Your task to perform on an android device: check the backup settings in the google photos Image 0: 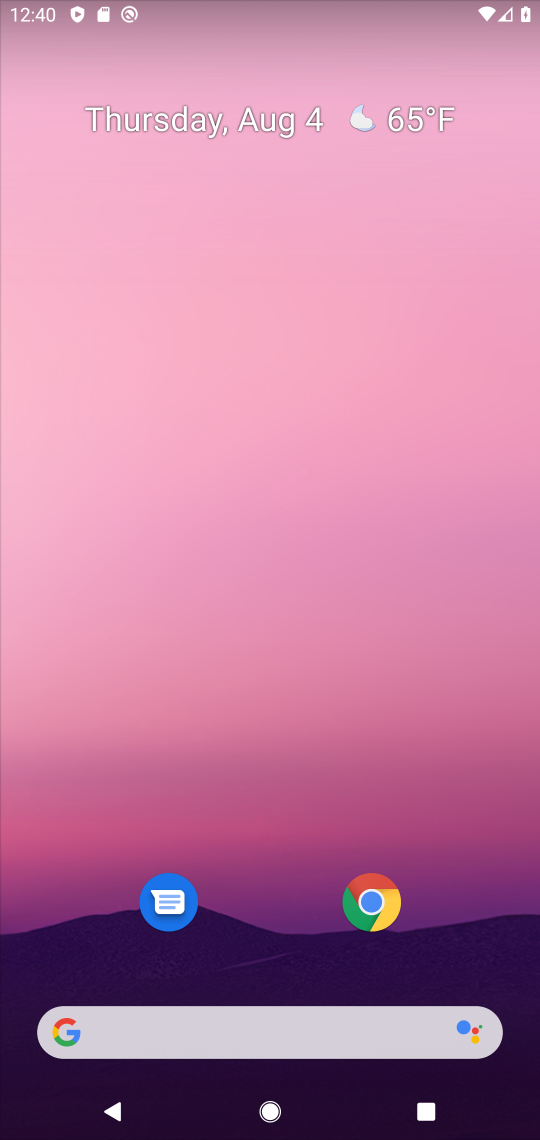
Step 0: drag from (497, 964) to (435, 219)
Your task to perform on an android device: check the backup settings in the google photos Image 1: 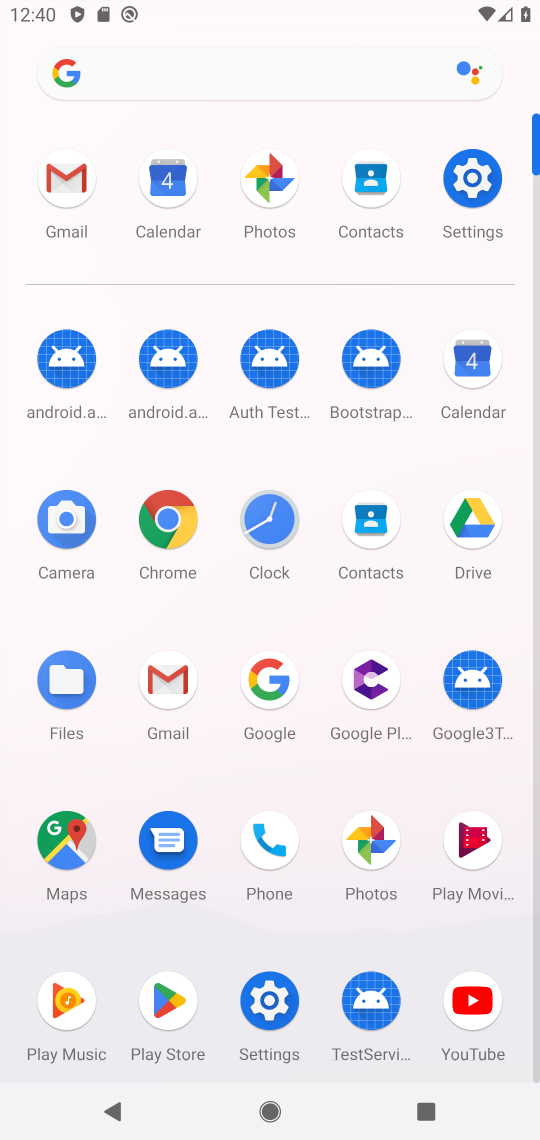
Step 1: click (371, 835)
Your task to perform on an android device: check the backup settings in the google photos Image 2: 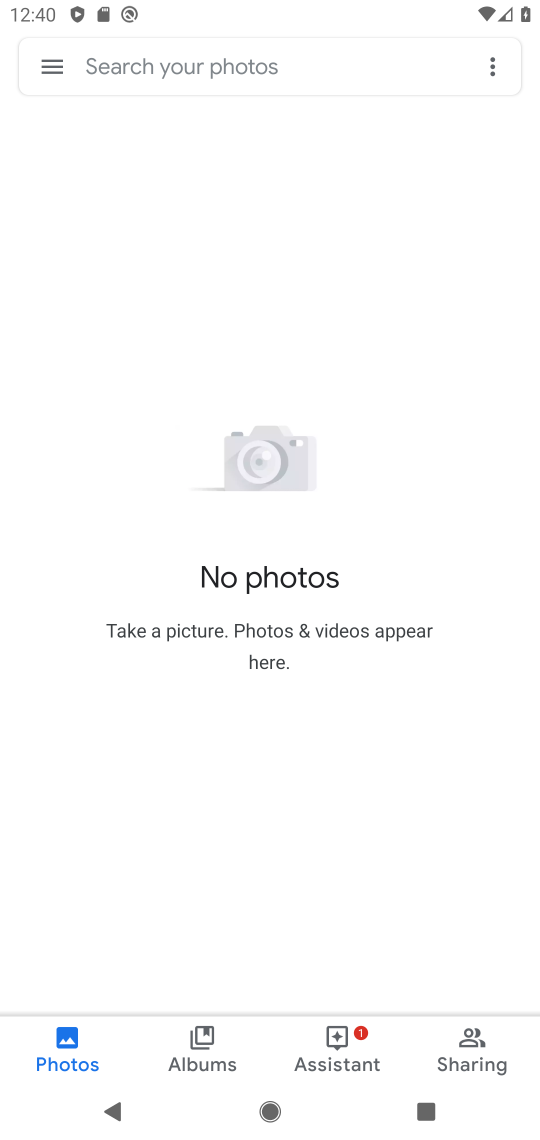
Step 2: click (45, 63)
Your task to perform on an android device: check the backup settings in the google photos Image 3: 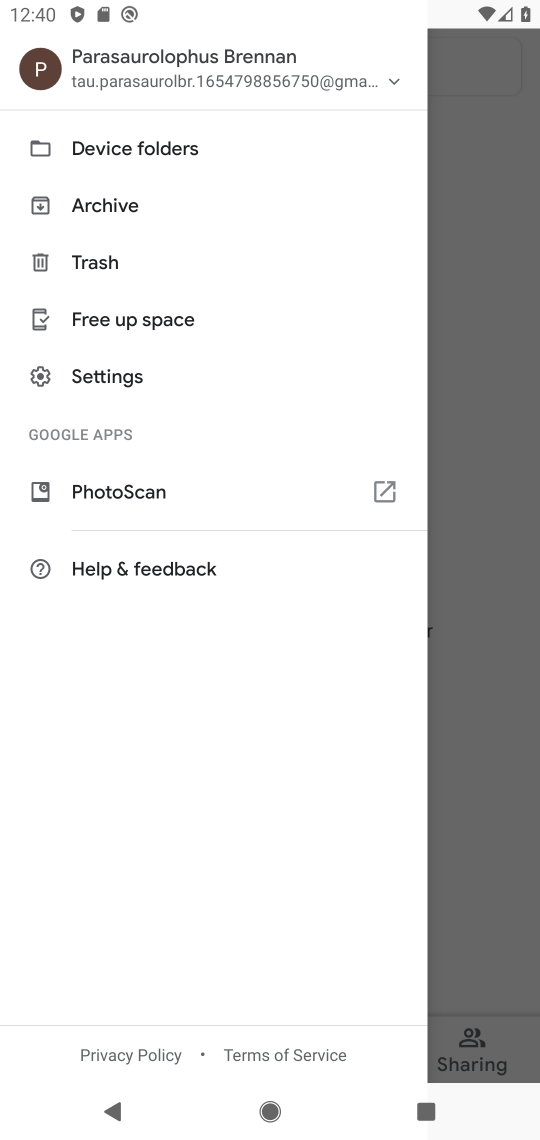
Step 3: click (105, 382)
Your task to perform on an android device: check the backup settings in the google photos Image 4: 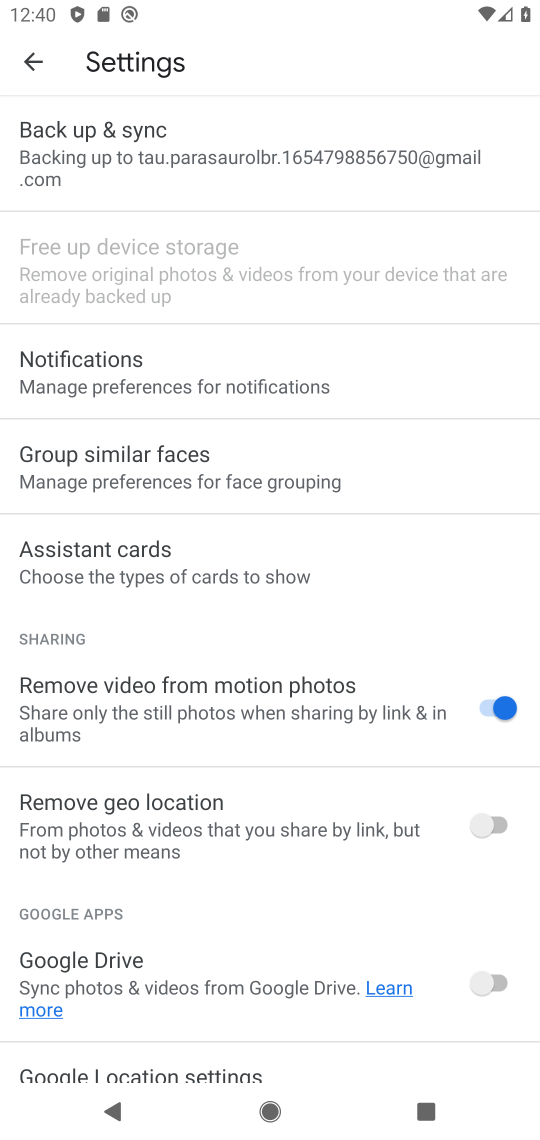
Step 4: click (125, 151)
Your task to perform on an android device: check the backup settings in the google photos Image 5: 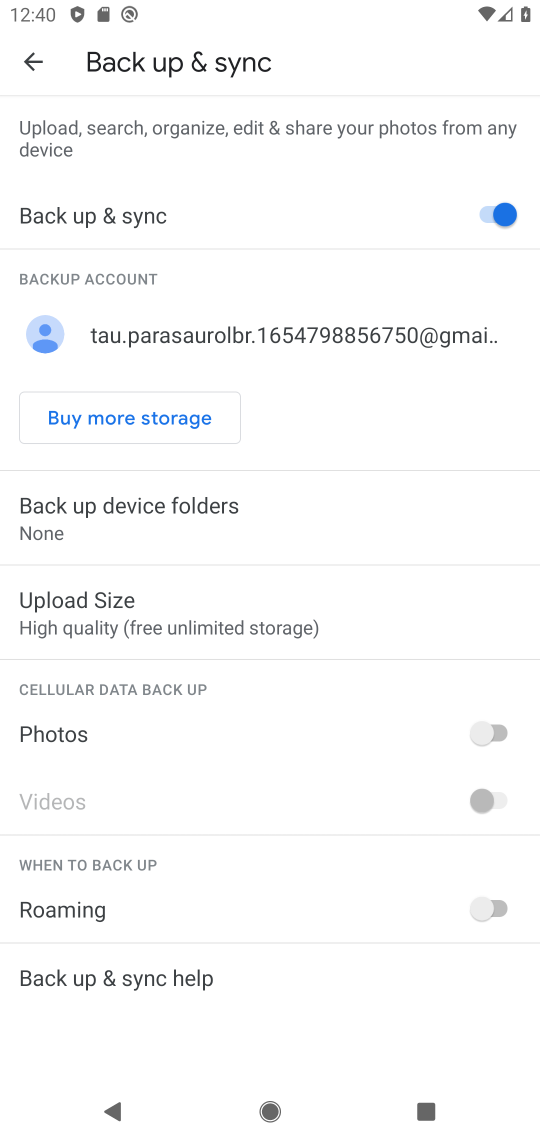
Step 5: task complete